Your task to perform on an android device: read, delete, or share a saved page in the chrome app Image 0: 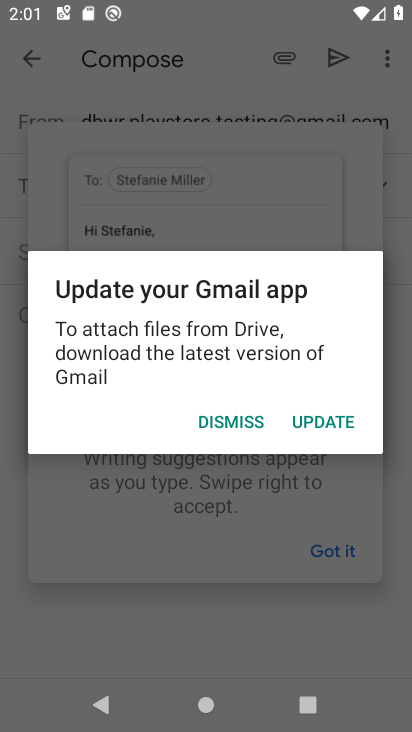
Step 0: press home button
Your task to perform on an android device: read, delete, or share a saved page in the chrome app Image 1: 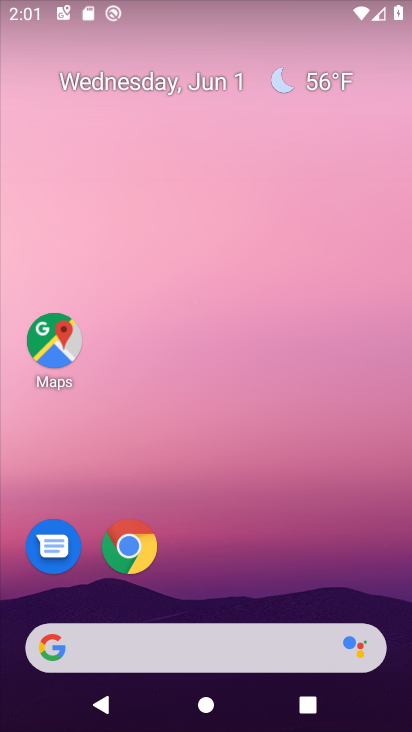
Step 1: click (122, 560)
Your task to perform on an android device: read, delete, or share a saved page in the chrome app Image 2: 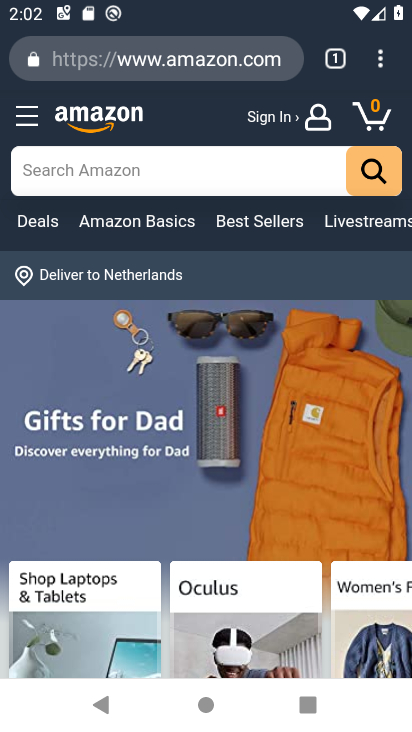
Step 2: click (384, 64)
Your task to perform on an android device: read, delete, or share a saved page in the chrome app Image 3: 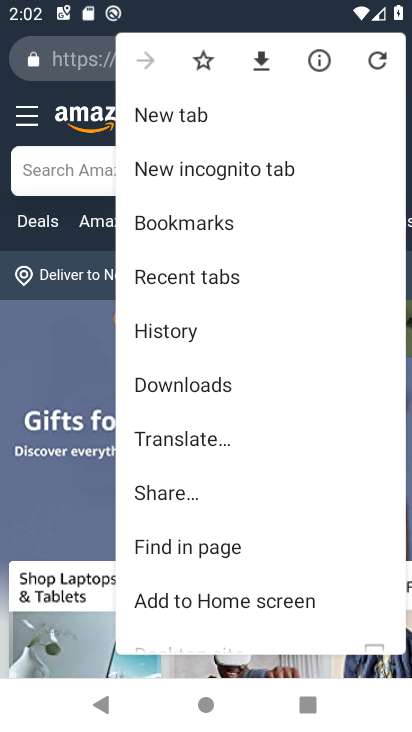
Step 3: click (202, 240)
Your task to perform on an android device: read, delete, or share a saved page in the chrome app Image 4: 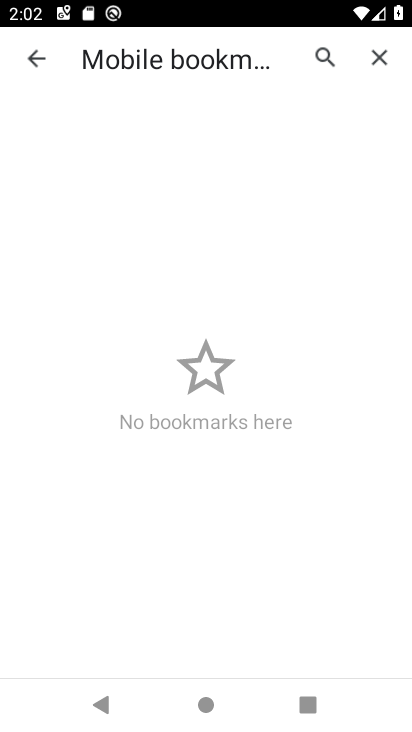
Step 4: task complete